Your task to perform on an android device: set the timer Image 0: 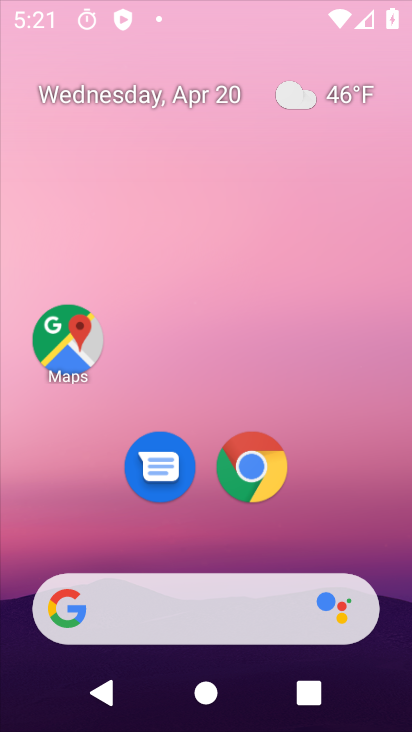
Step 0: drag from (219, 440) to (283, 3)
Your task to perform on an android device: set the timer Image 1: 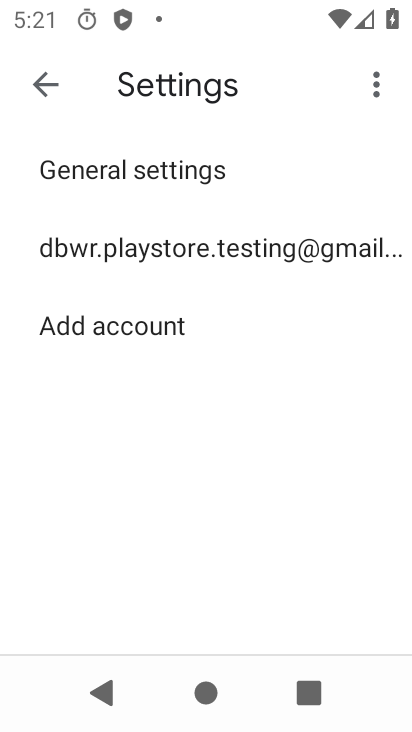
Step 1: press home button
Your task to perform on an android device: set the timer Image 2: 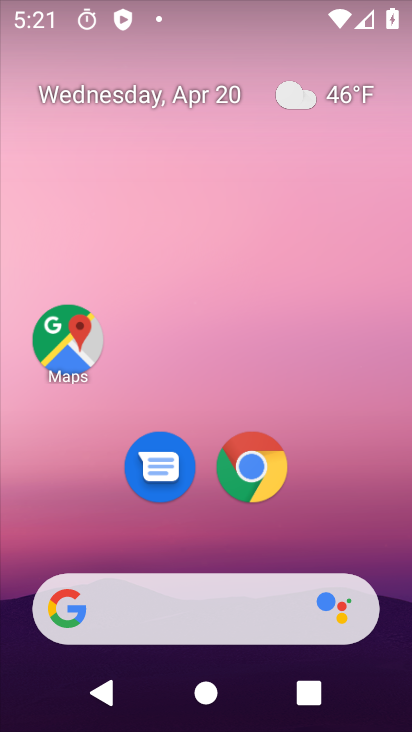
Step 2: drag from (255, 538) to (296, 23)
Your task to perform on an android device: set the timer Image 3: 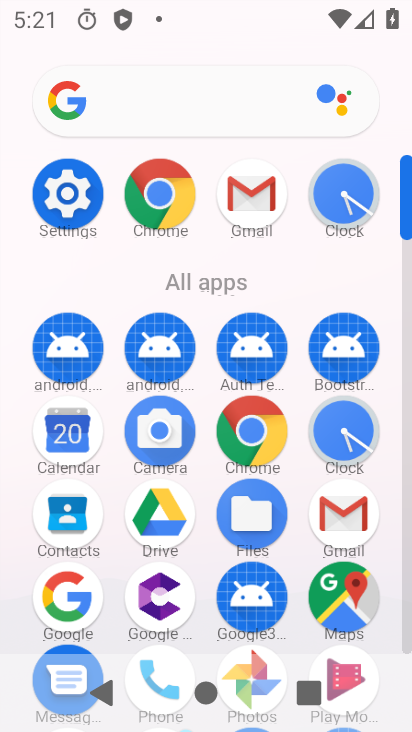
Step 3: click (352, 430)
Your task to perform on an android device: set the timer Image 4: 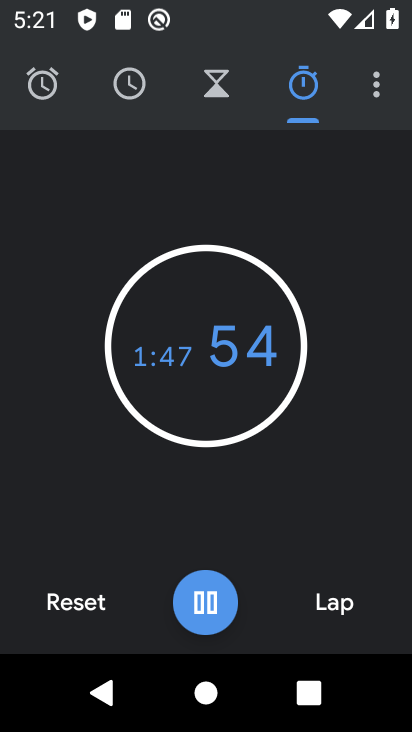
Step 4: click (216, 91)
Your task to perform on an android device: set the timer Image 5: 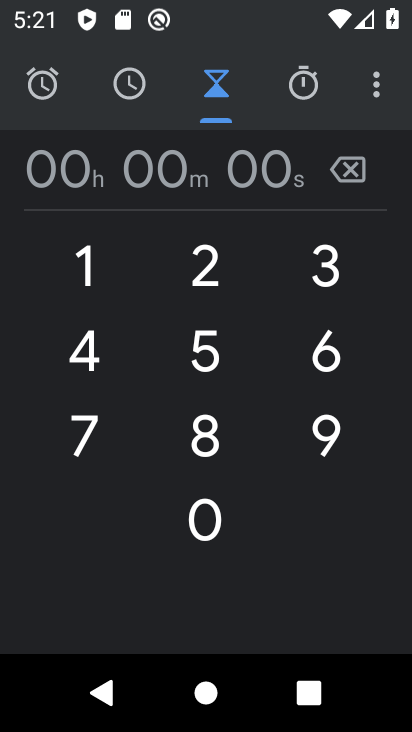
Step 5: click (96, 419)
Your task to perform on an android device: set the timer Image 6: 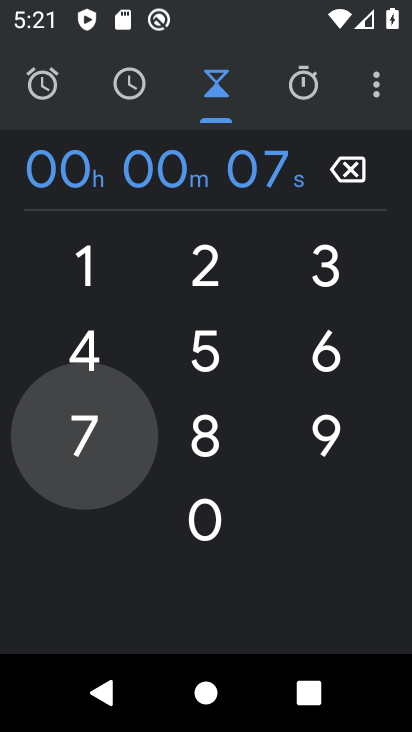
Step 6: click (205, 347)
Your task to perform on an android device: set the timer Image 7: 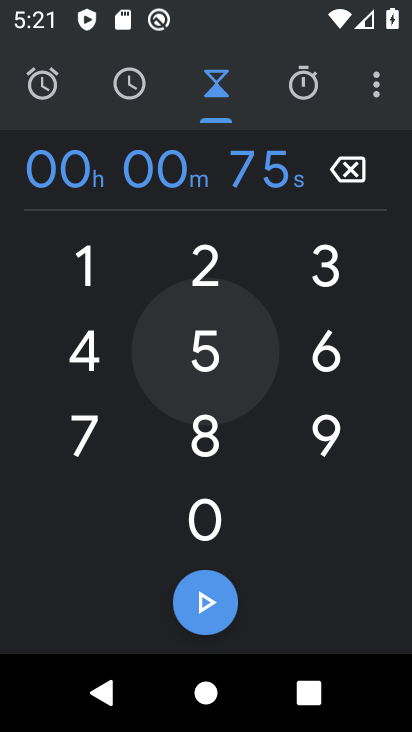
Step 7: click (312, 423)
Your task to perform on an android device: set the timer Image 8: 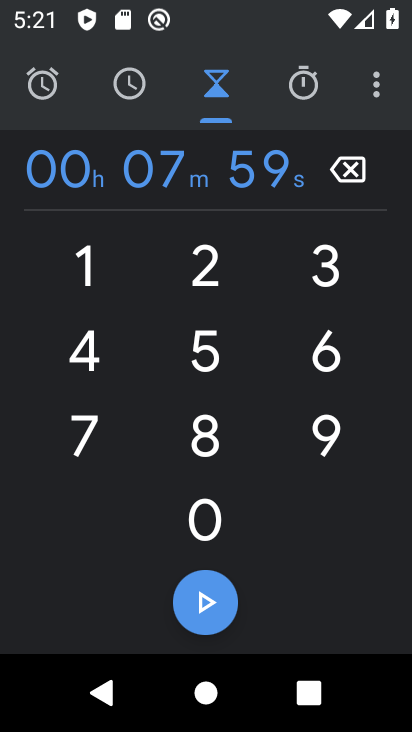
Step 8: click (209, 602)
Your task to perform on an android device: set the timer Image 9: 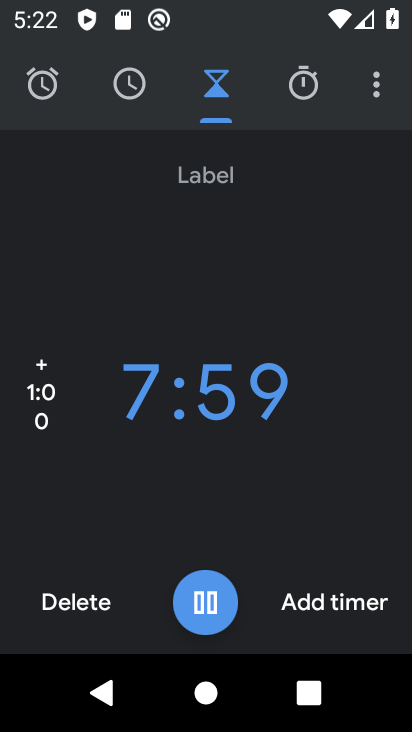
Step 9: task complete